Your task to perform on an android device: Go to ESPN.com Image 0: 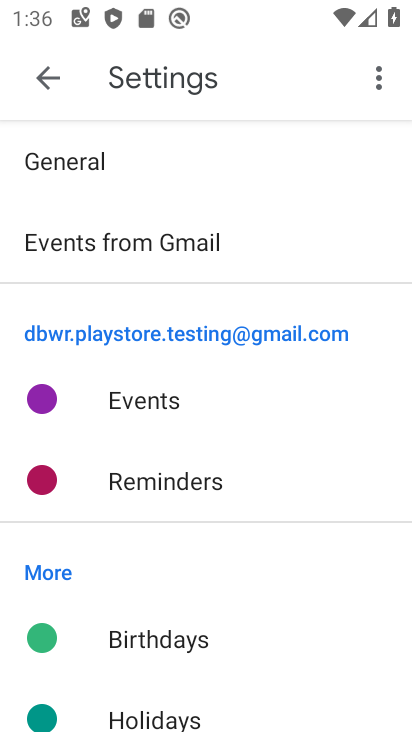
Step 0: press home button
Your task to perform on an android device: Go to ESPN.com Image 1: 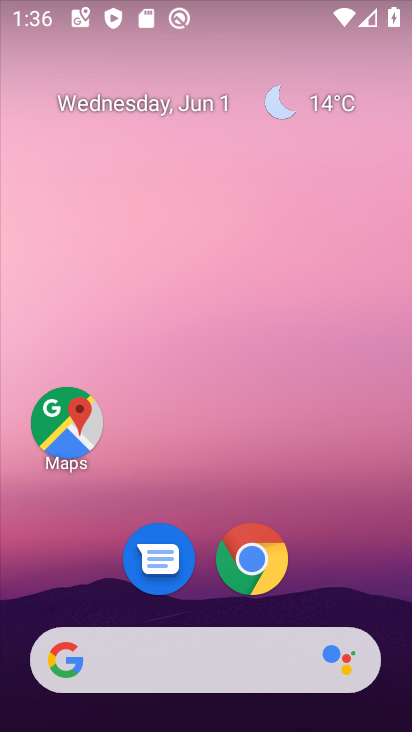
Step 1: click (265, 559)
Your task to perform on an android device: Go to ESPN.com Image 2: 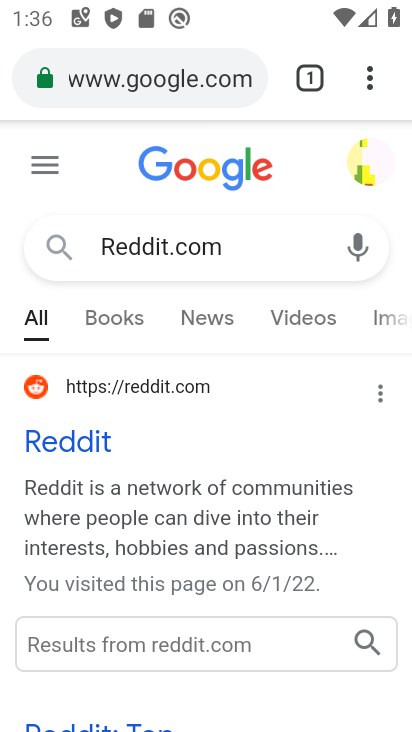
Step 2: click (253, 71)
Your task to perform on an android device: Go to ESPN.com Image 3: 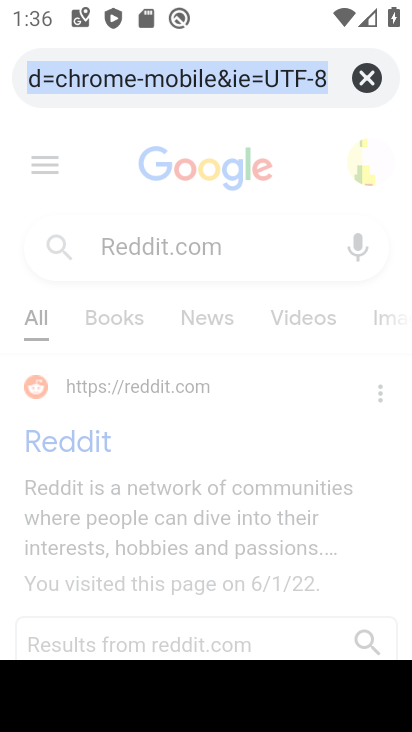
Step 3: click (357, 62)
Your task to perform on an android device: Go to ESPN.com Image 4: 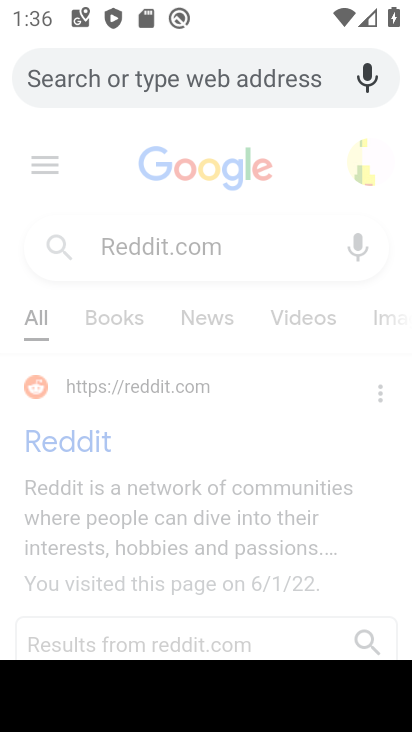
Step 4: type "ESPN.com"
Your task to perform on an android device: Go to ESPN.com Image 5: 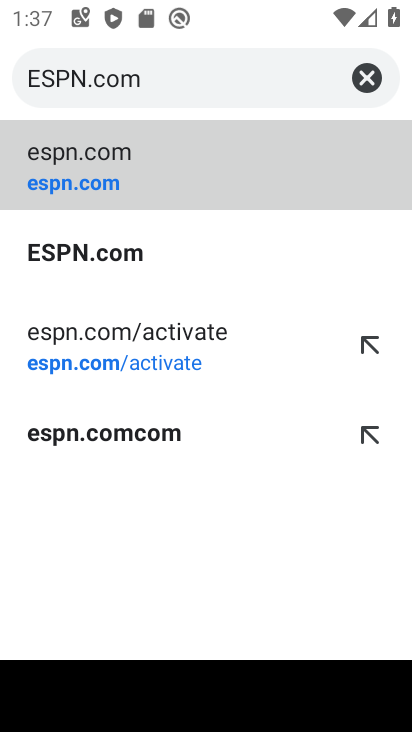
Step 5: click (60, 250)
Your task to perform on an android device: Go to ESPN.com Image 6: 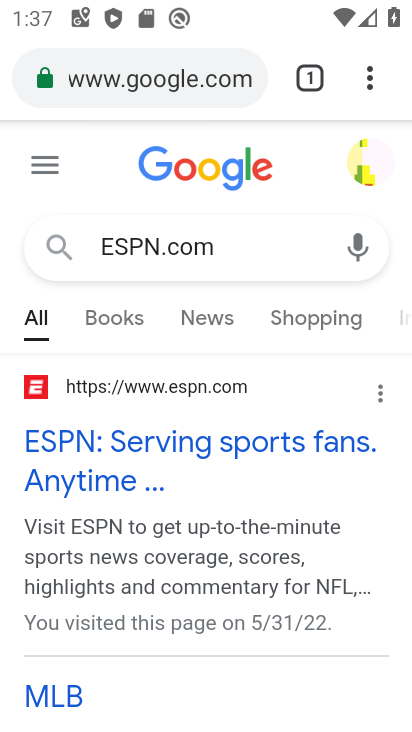
Step 6: task complete